Your task to perform on an android device: Go to calendar. Show me events next week Image 0: 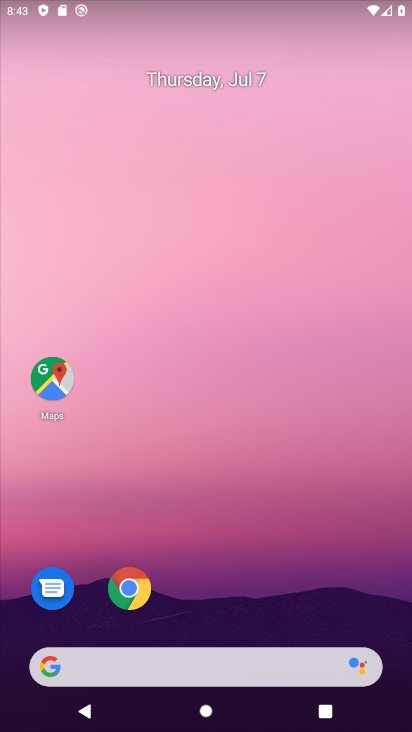
Step 0: drag from (215, 595) to (231, 0)
Your task to perform on an android device: Go to calendar. Show me events next week Image 1: 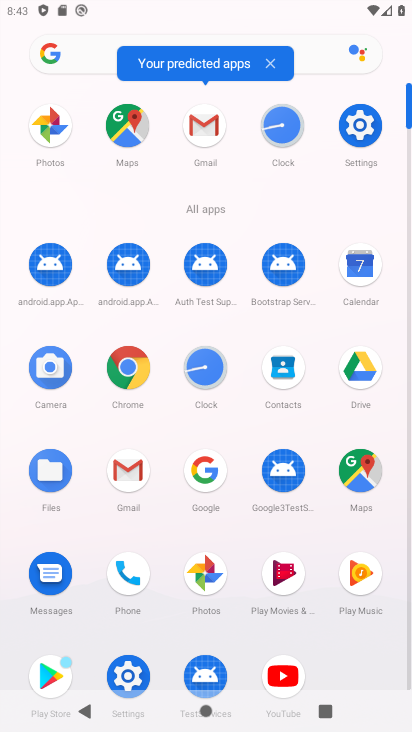
Step 1: click (359, 259)
Your task to perform on an android device: Go to calendar. Show me events next week Image 2: 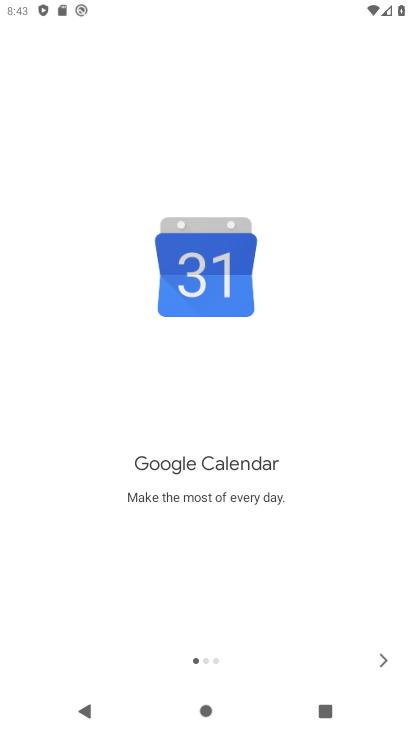
Step 2: click (377, 656)
Your task to perform on an android device: Go to calendar. Show me events next week Image 3: 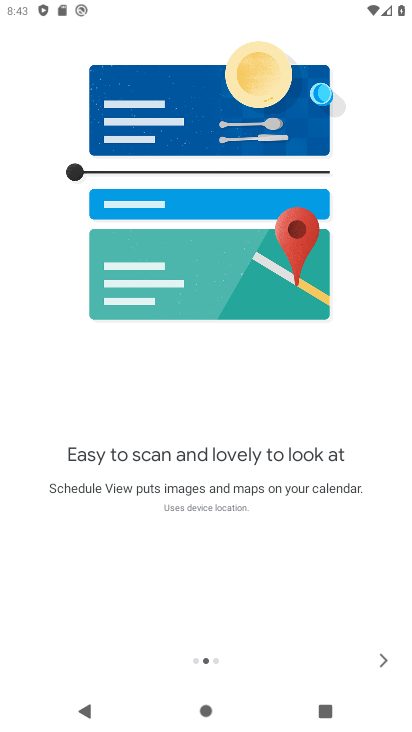
Step 3: click (381, 658)
Your task to perform on an android device: Go to calendar. Show me events next week Image 4: 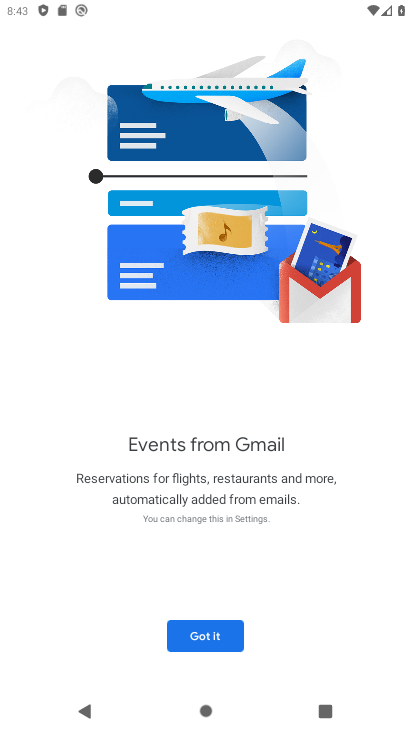
Step 4: click (206, 635)
Your task to perform on an android device: Go to calendar. Show me events next week Image 5: 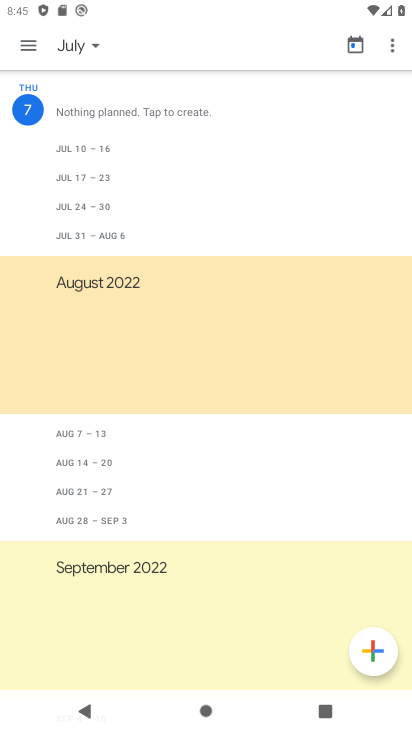
Step 5: click (23, 42)
Your task to perform on an android device: Go to calendar. Show me events next week Image 6: 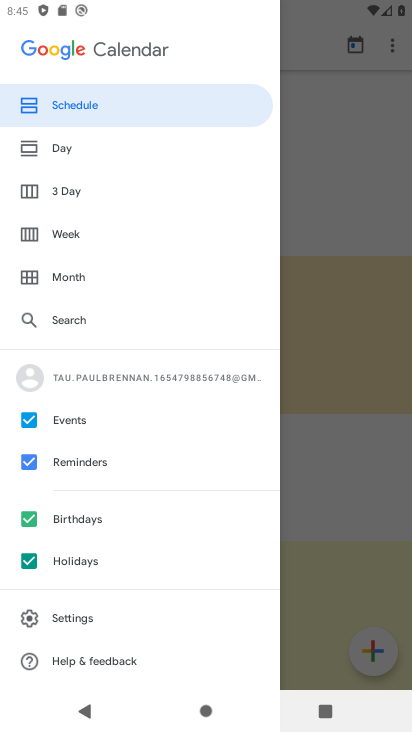
Step 6: click (61, 229)
Your task to perform on an android device: Go to calendar. Show me events next week Image 7: 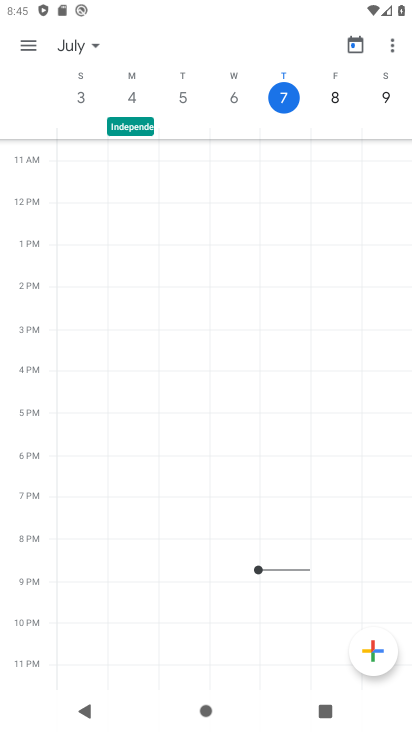
Step 7: drag from (379, 96) to (0, 94)
Your task to perform on an android device: Go to calendar. Show me events next week Image 8: 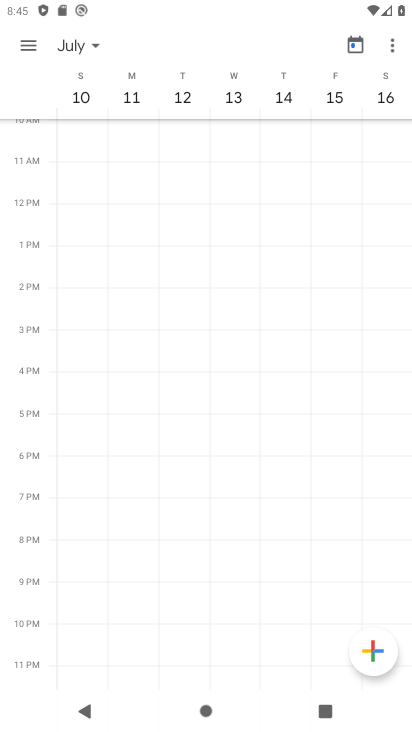
Step 8: click (86, 100)
Your task to perform on an android device: Go to calendar. Show me events next week Image 9: 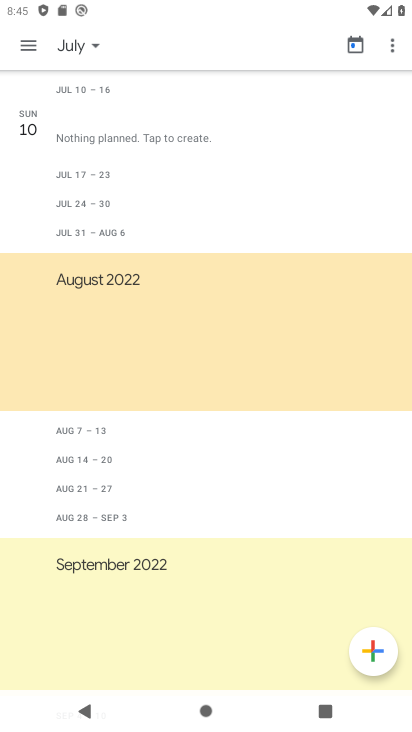
Step 9: task complete